Your task to perform on an android device: turn off wifi Image 0: 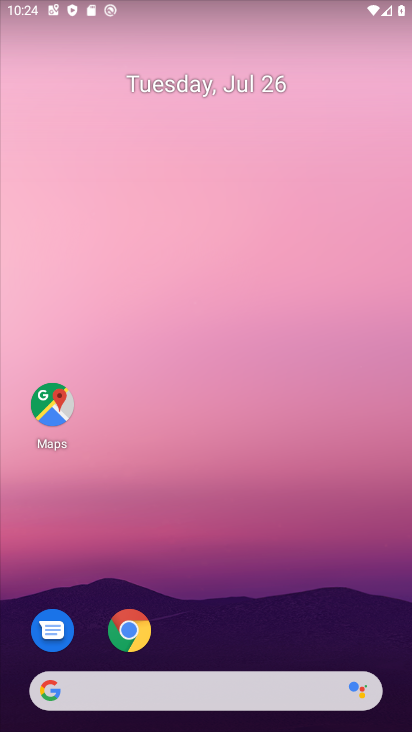
Step 0: drag from (185, 535) to (180, 79)
Your task to perform on an android device: turn off wifi Image 1: 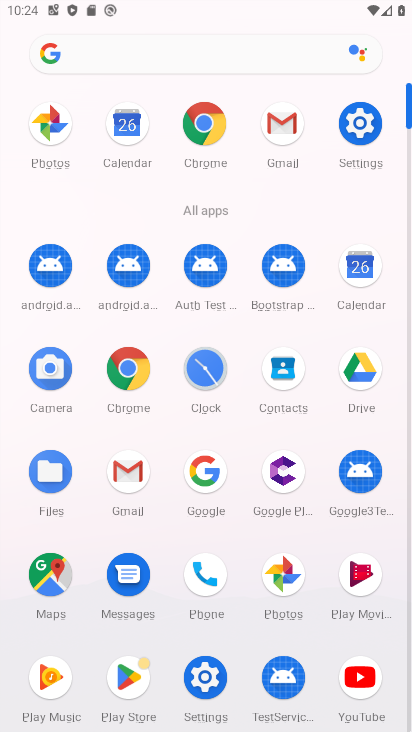
Step 1: click (357, 133)
Your task to perform on an android device: turn off wifi Image 2: 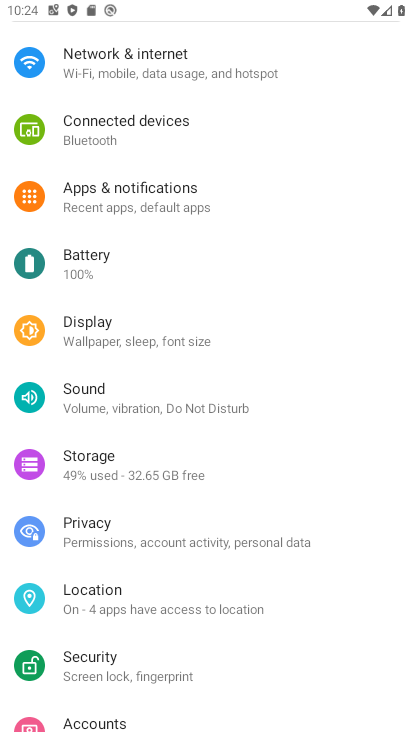
Step 2: click (122, 63)
Your task to perform on an android device: turn off wifi Image 3: 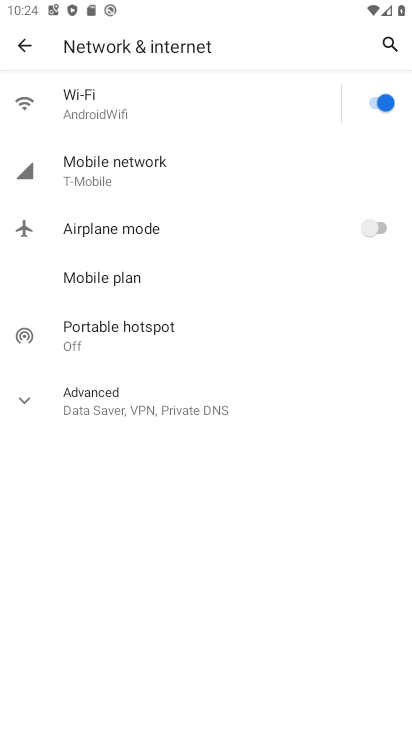
Step 3: click (366, 98)
Your task to perform on an android device: turn off wifi Image 4: 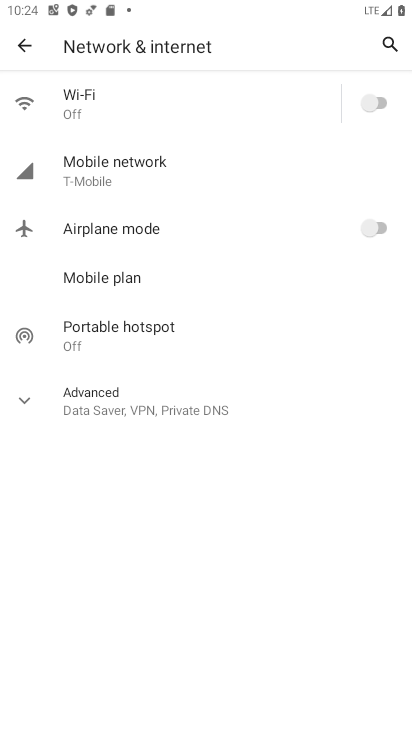
Step 4: task complete